Your task to perform on an android device: change the upload size in google photos Image 0: 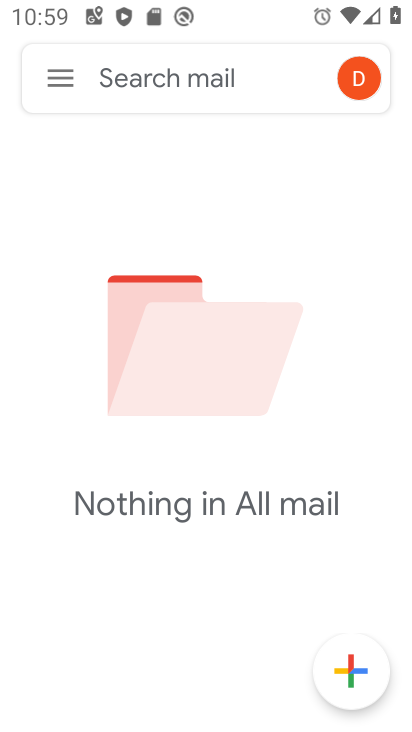
Step 0: press home button
Your task to perform on an android device: change the upload size in google photos Image 1: 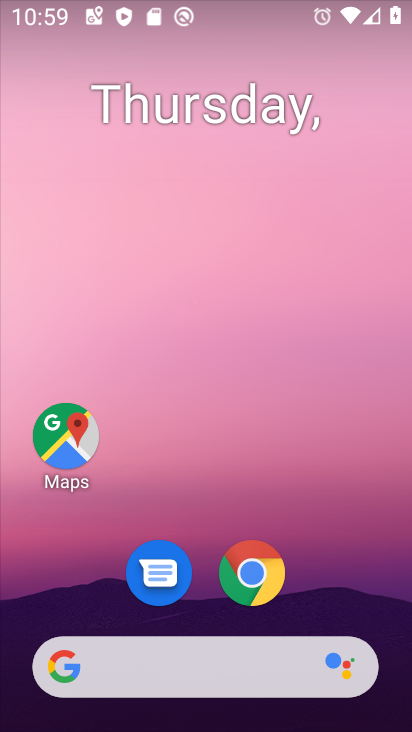
Step 1: drag from (308, 602) to (288, 163)
Your task to perform on an android device: change the upload size in google photos Image 2: 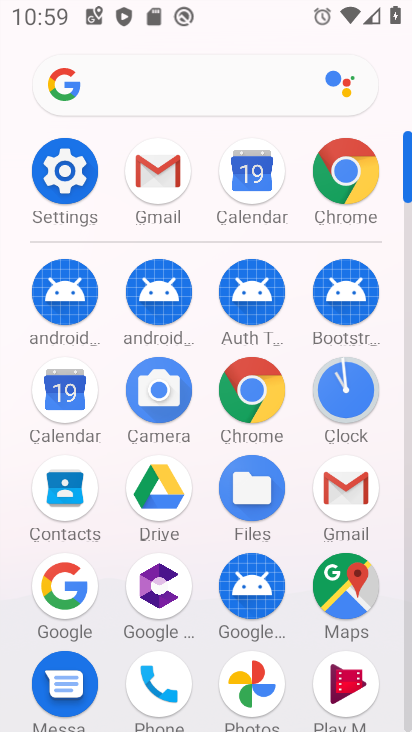
Step 2: click (264, 690)
Your task to perform on an android device: change the upload size in google photos Image 3: 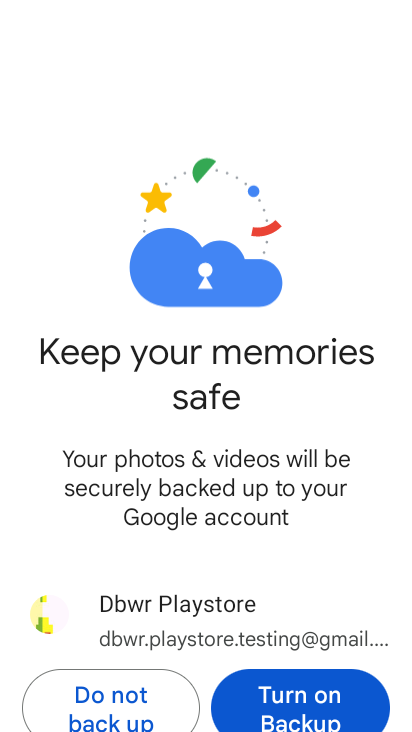
Step 3: drag from (274, 575) to (262, 167)
Your task to perform on an android device: change the upload size in google photos Image 4: 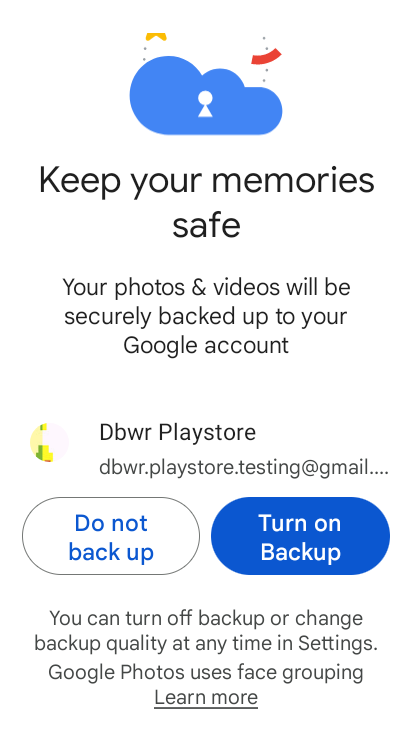
Step 4: click (270, 551)
Your task to perform on an android device: change the upload size in google photos Image 5: 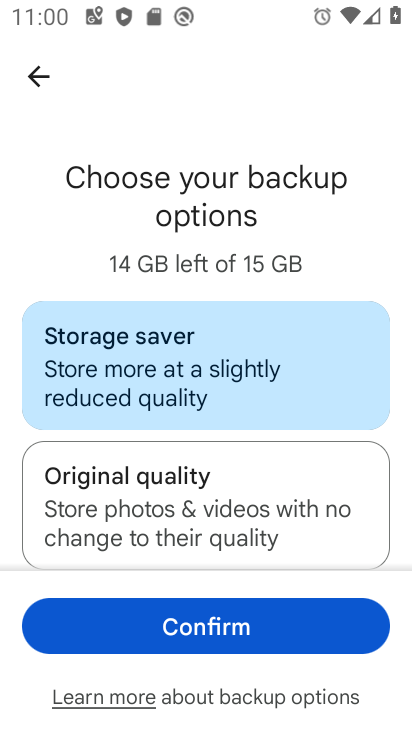
Step 5: click (252, 629)
Your task to perform on an android device: change the upload size in google photos Image 6: 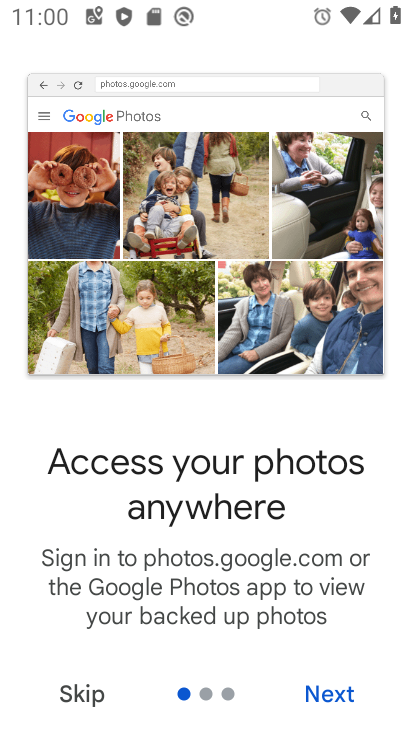
Step 6: click (333, 686)
Your task to perform on an android device: change the upload size in google photos Image 7: 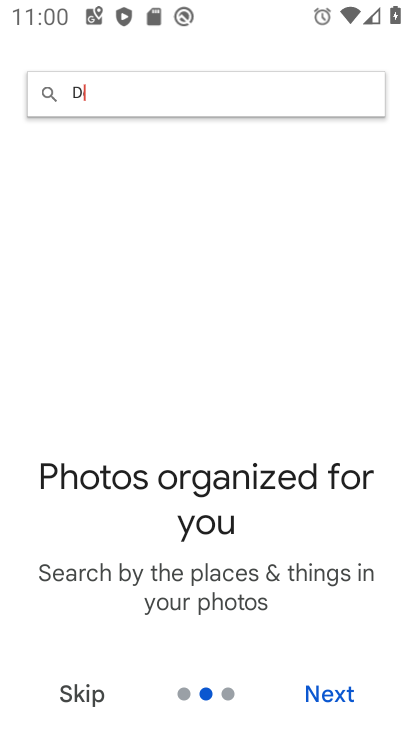
Step 7: click (333, 686)
Your task to perform on an android device: change the upload size in google photos Image 8: 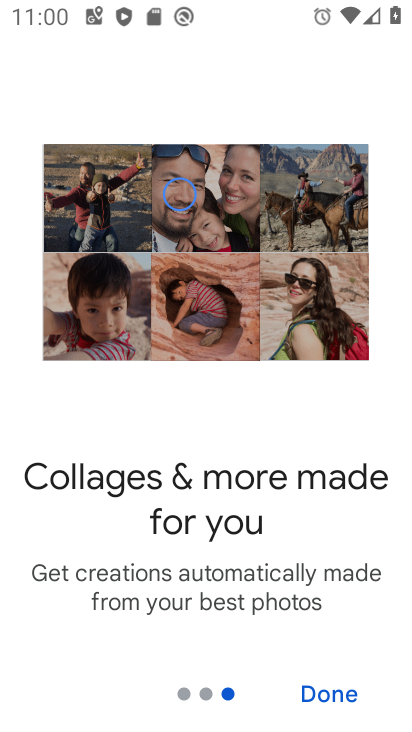
Step 8: click (333, 686)
Your task to perform on an android device: change the upload size in google photos Image 9: 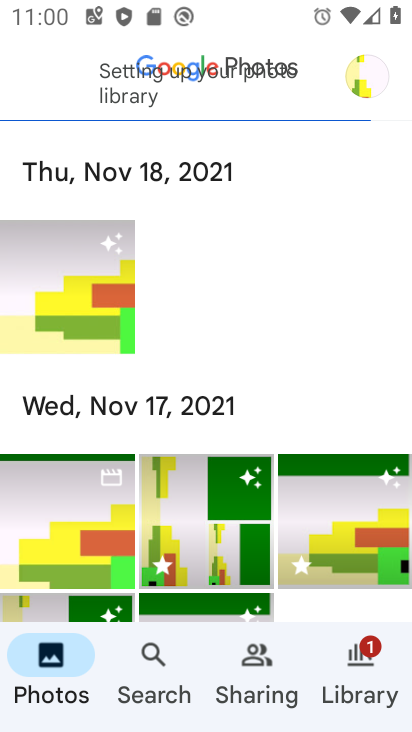
Step 9: click (365, 66)
Your task to perform on an android device: change the upload size in google photos Image 10: 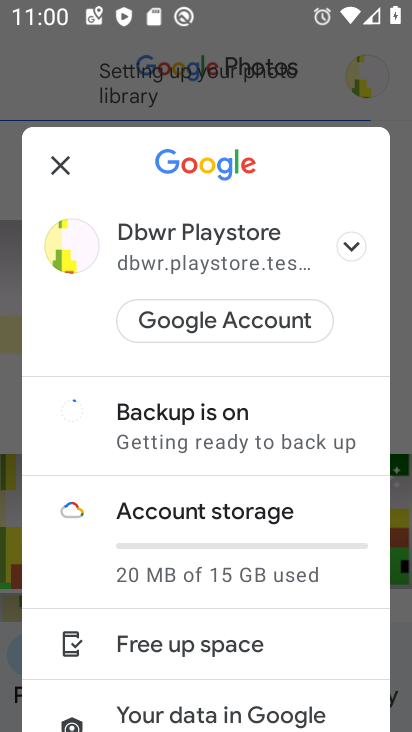
Step 10: drag from (234, 663) to (293, 321)
Your task to perform on an android device: change the upload size in google photos Image 11: 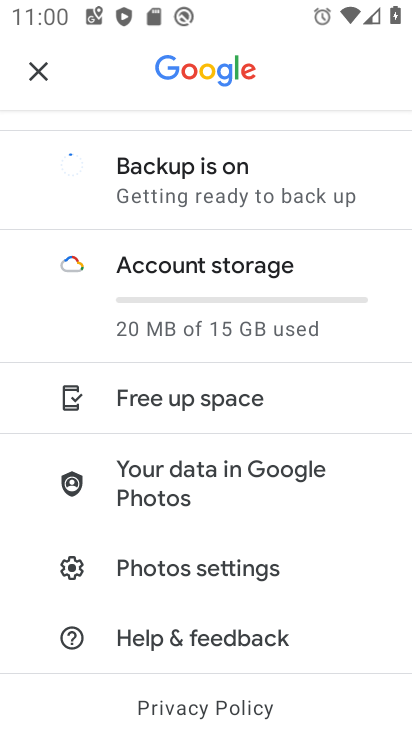
Step 11: click (162, 560)
Your task to perform on an android device: change the upload size in google photos Image 12: 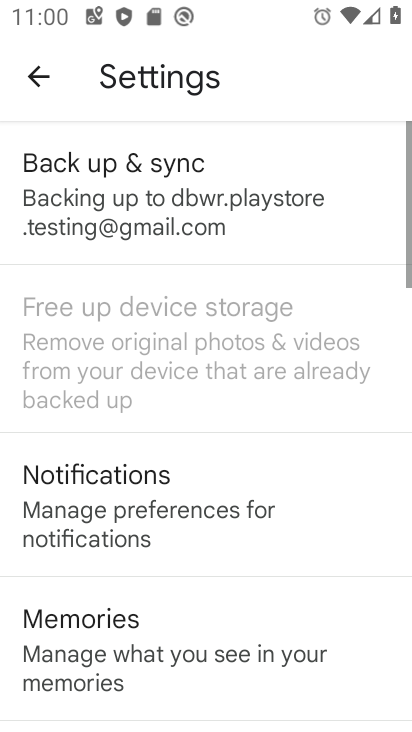
Step 12: click (188, 207)
Your task to perform on an android device: change the upload size in google photos Image 13: 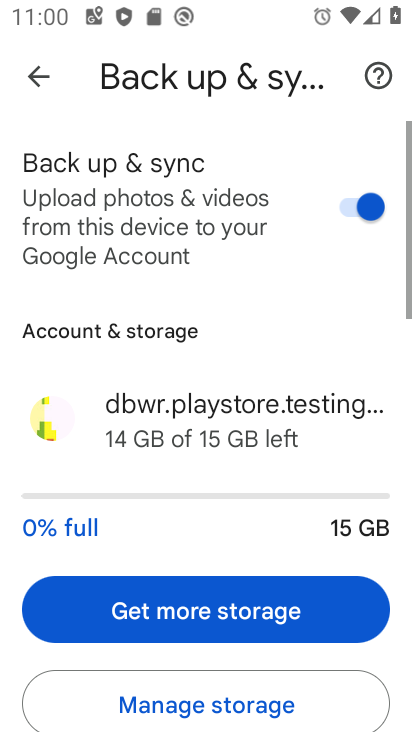
Step 13: drag from (220, 482) to (217, 119)
Your task to perform on an android device: change the upload size in google photos Image 14: 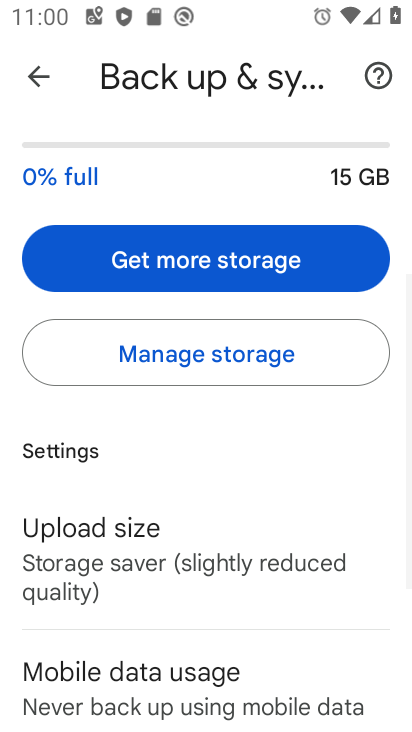
Step 14: drag from (78, 482) to (146, 337)
Your task to perform on an android device: change the upload size in google photos Image 15: 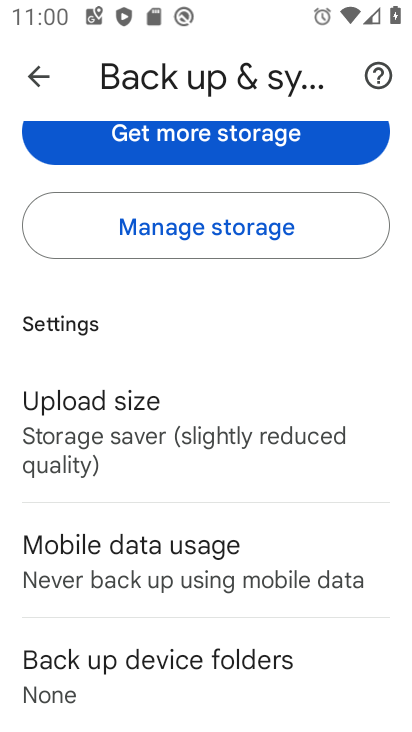
Step 15: click (131, 420)
Your task to perform on an android device: change the upload size in google photos Image 16: 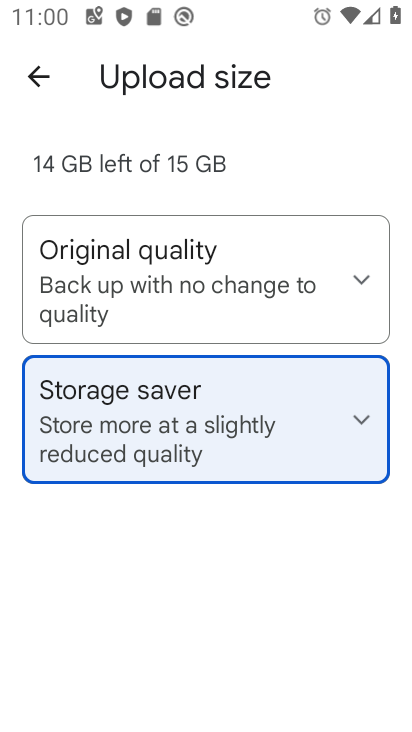
Step 16: click (160, 297)
Your task to perform on an android device: change the upload size in google photos Image 17: 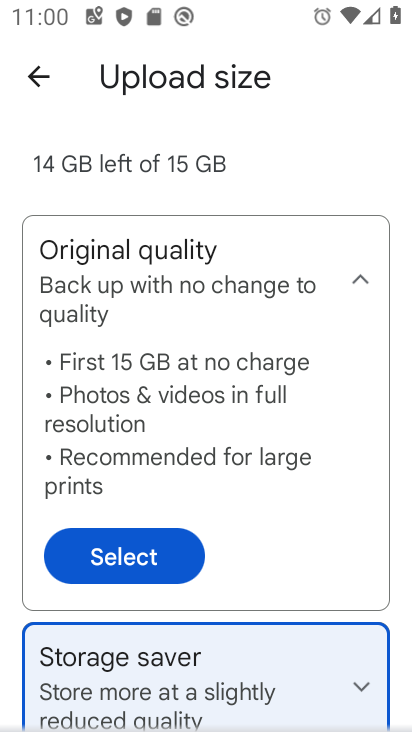
Step 17: click (142, 555)
Your task to perform on an android device: change the upload size in google photos Image 18: 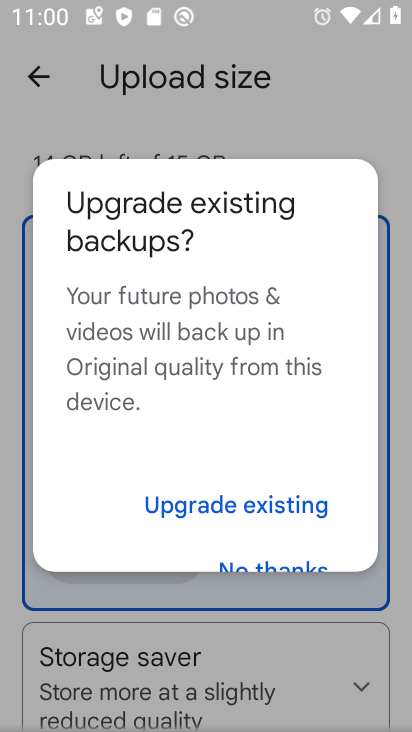
Step 18: click (299, 563)
Your task to perform on an android device: change the upload size in google photos Image 19: 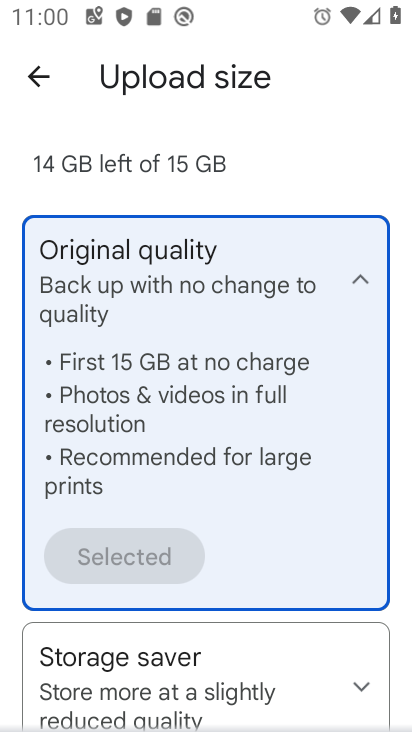
Step 19: task complete